Your task to perform on an android device: Open maps Image 0: 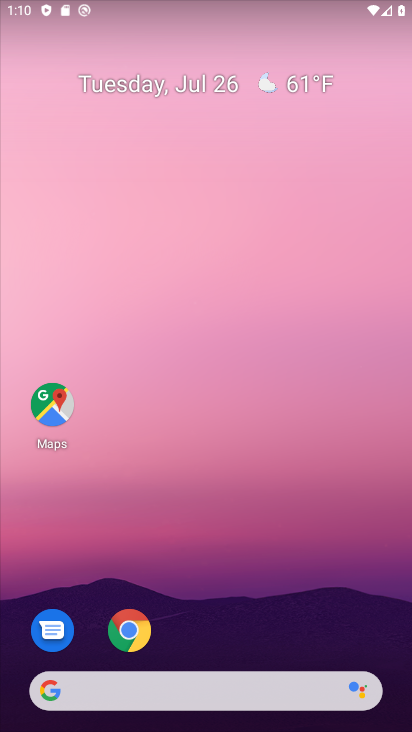
Step 0: click (49, 400)
Your task to perform on an android device: Open maps Image 1: 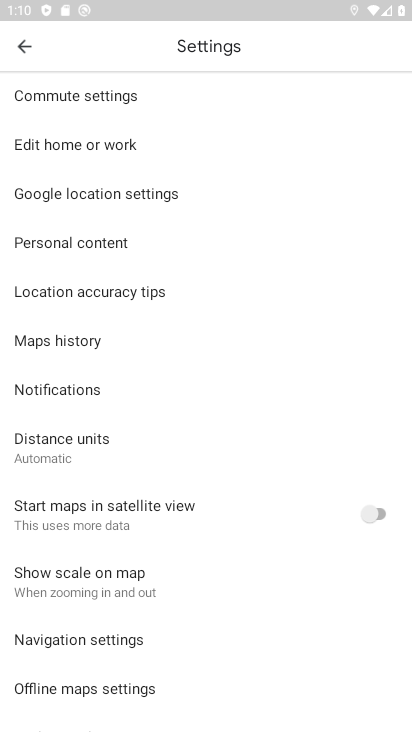
Step 1: task complete